Your task to perform on an android device: Show me recent news Image 0: 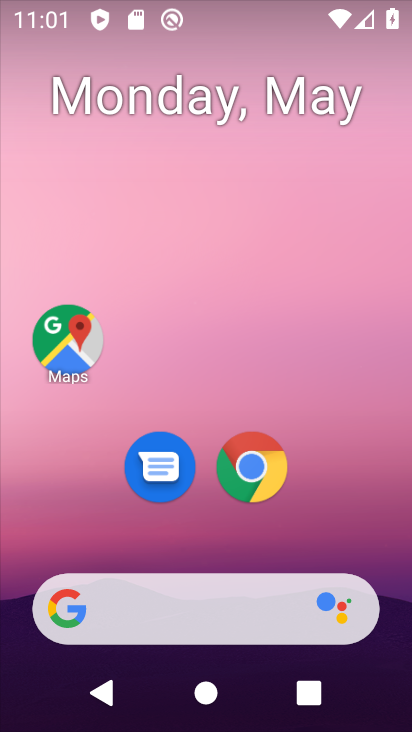
Step 0: click (235, 585)
Your task to perform on an android device: Show me recent news Image 1: 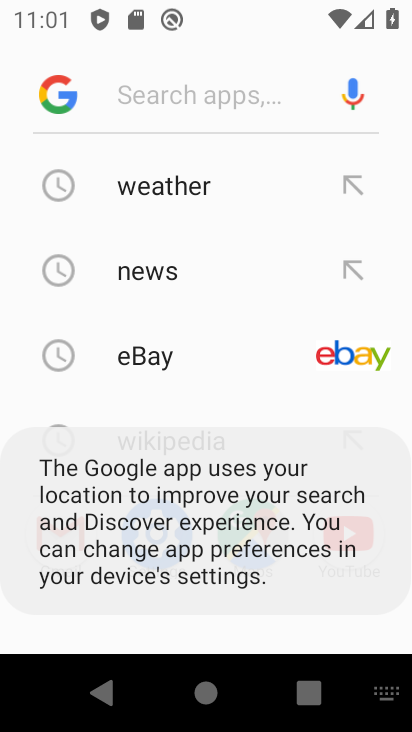
Step 1: click (179, 257)
Your task to perform on an android device: Show me recent news Image 2: 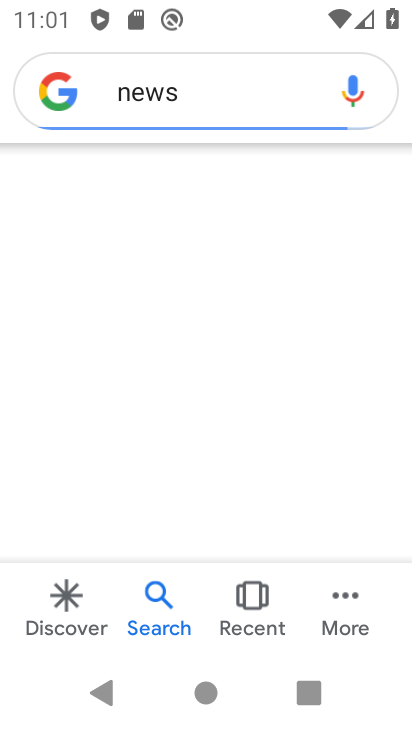
Step 2: task complete